Your task to perform on an android device: Open Youtube and go to "Your channel" Image 0: 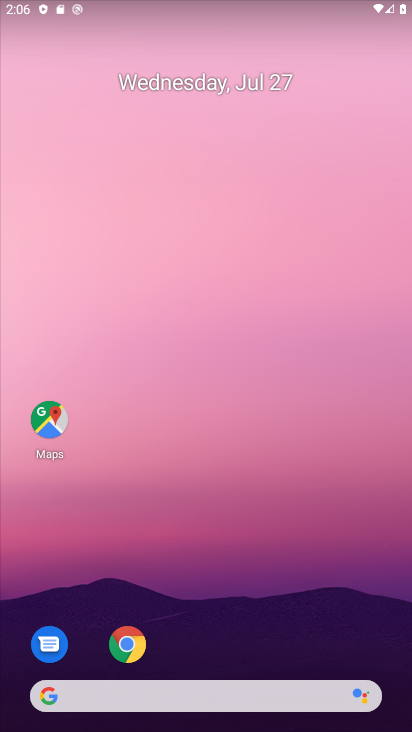
Step 0: click (261, 132)
Your task to perform on an android device: Open Youtube and go to "Your channel" Image 1: 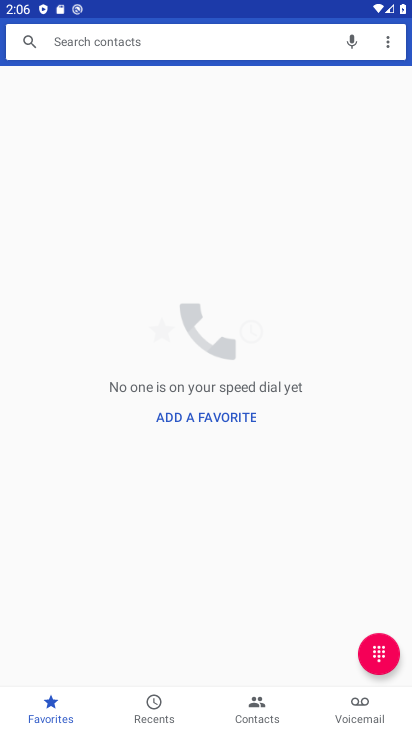
Step 1: press home button
Your task to perform on an android device: Open Youtube and go to "Your channel" Image 2: 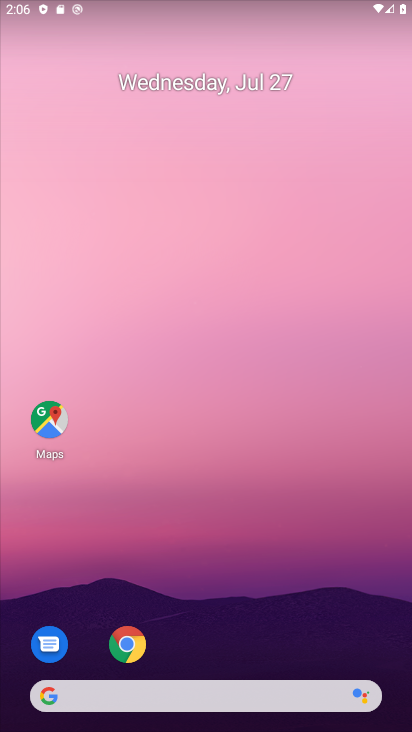
Step 2: drag from (229, 646) to (204, 121)
Your task to perform on an android device: Open Youtube and go to "Your channel" Image 3: 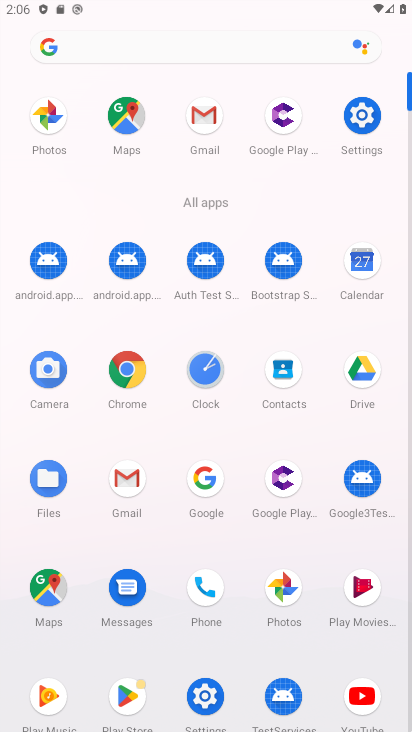
Step 3: click (363, 698)
Your task to perform on an android device: Open Youtube and go to "Your channel" Image 4: 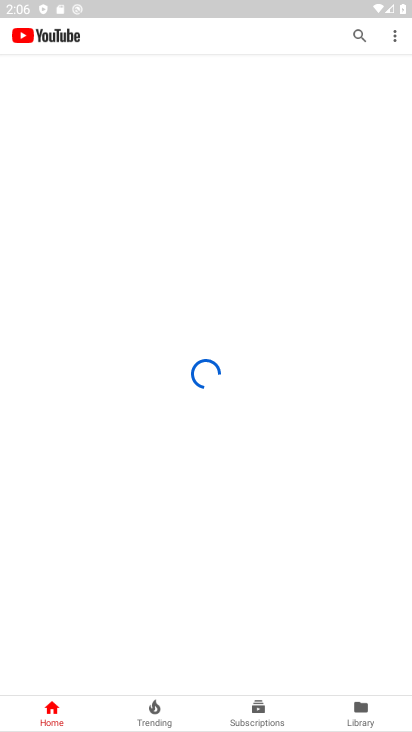
Step 4: click (364, 702)
Your task to perform on an android device: Open Youtube and go to "Your channel" Image 5: 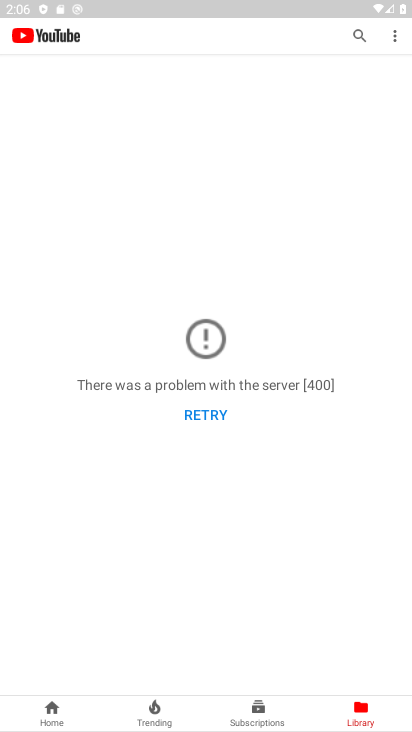
Step 5: click (387, 46)
Your task to perform on an android device: Open Youtube and go to "Your channel" Image 6: 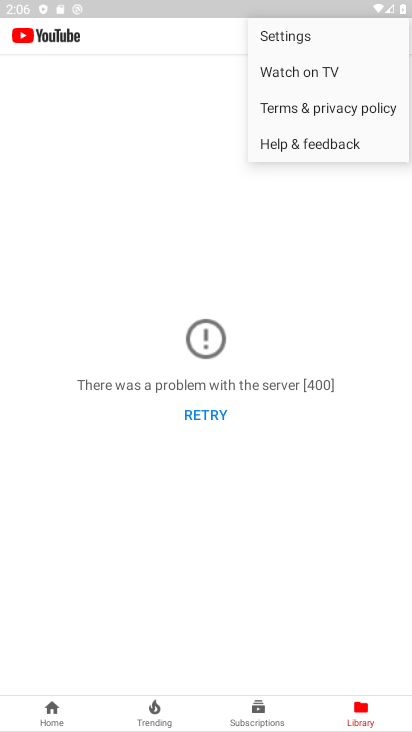
Step 6: task complete